Your task to perform on an android device: show emergency info Image 0: 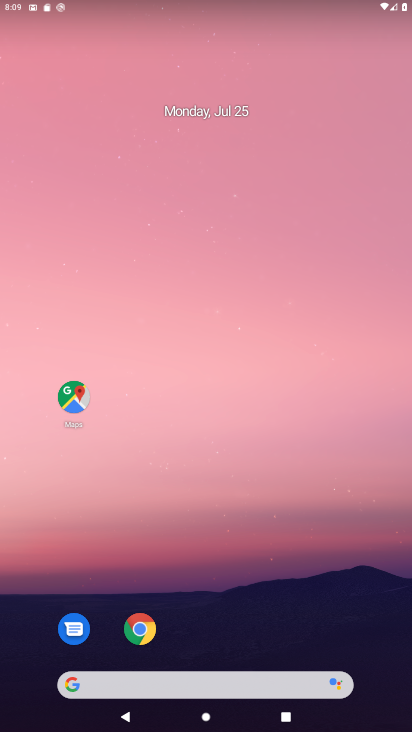
Step 0: drag from (181, 676) to (251, 44)
Your task to perform on an android device: show emergency info Image 1: 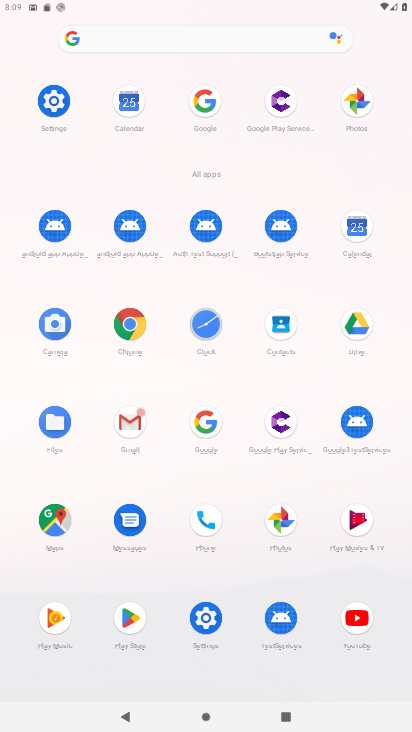
Step 1: click (53, 98)
Your task to perform on an android device: show emergency info Image 2: 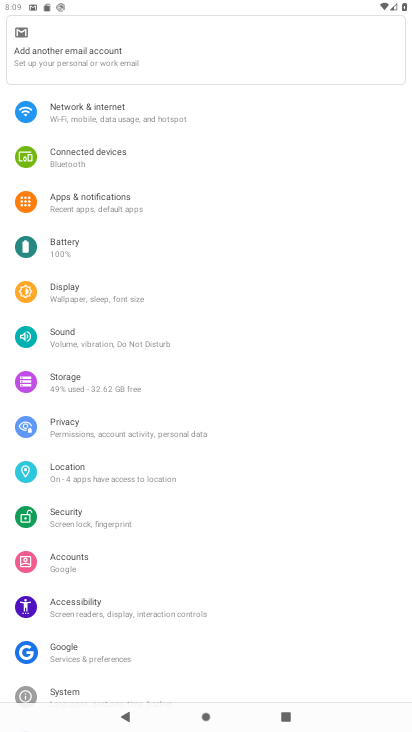
Step 2: drag from (113, 569) to (197, 448)
Your task to perform on an android device: show emergency info Image 3: 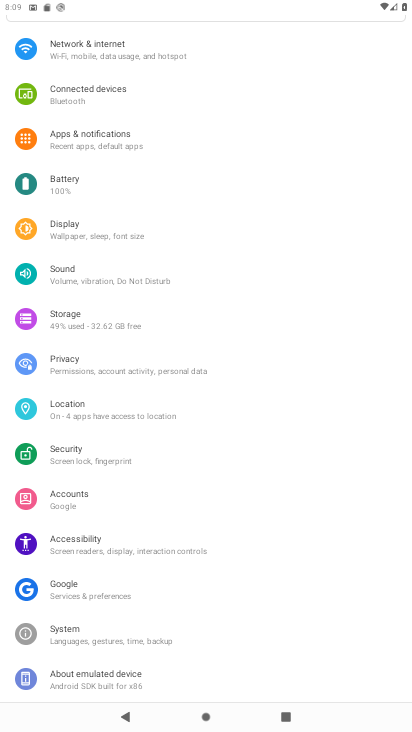
Step 3: click (96, 671)
Your task to perform on an android device: show emergency info Image 4: 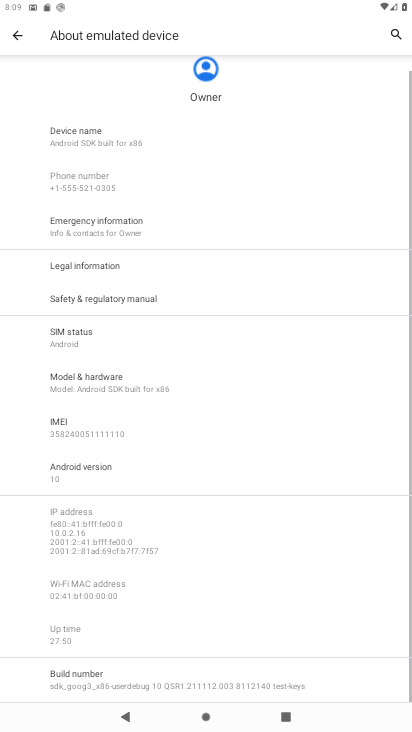
Step 4: click (102, 229)
Your task to perform on an android device: show emergency info Image 5: 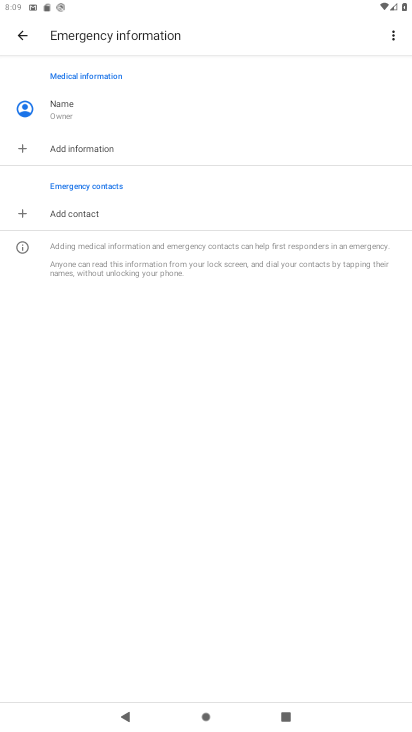
Step 5: task complete